Your task to perform on an android device: uninstall "Contacts" Image 0: 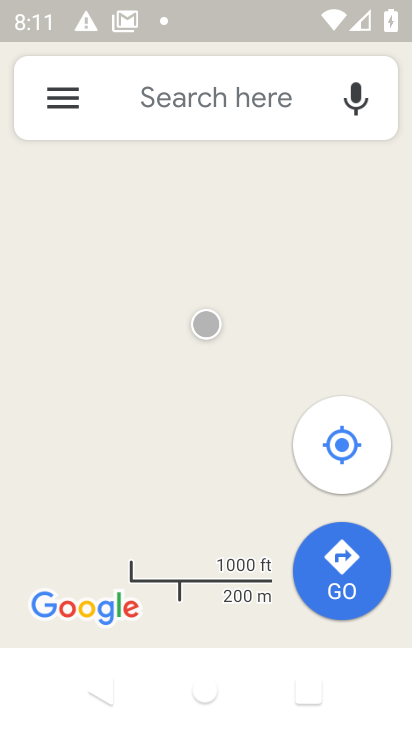
Step 0: press home button
Your task to perform on an android device: uninstall "Contacts" Image 1: 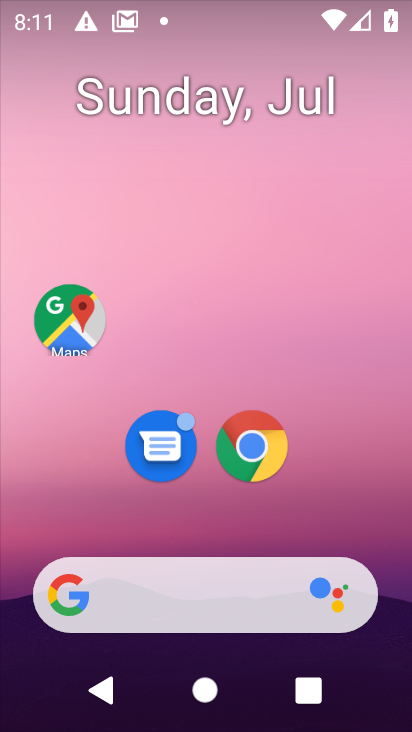
Step 1: drag from (222, 454) to (247, 123)
Your task to perform on an android device: uninstall "Contacts" Image 2: 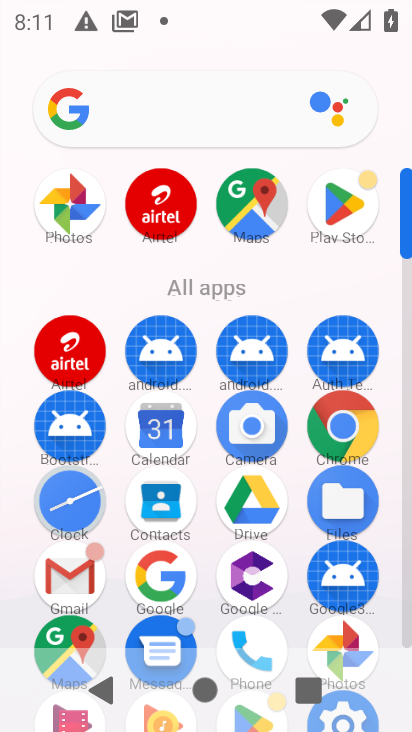
Step 2: click (334, 214)
Your task to perform on an android device: uninstall "Contacts" Image 3: 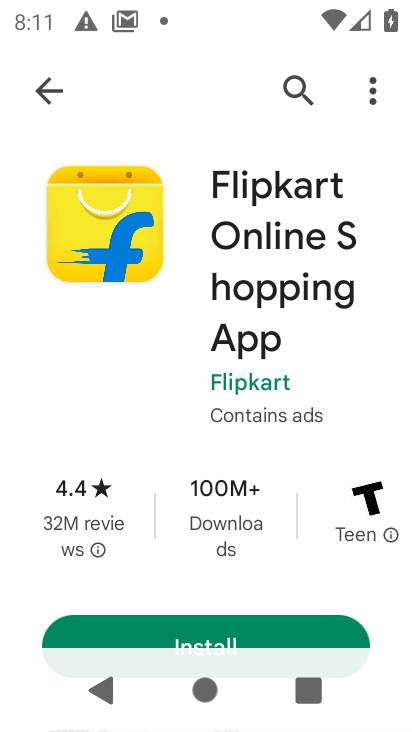
Step 3: click (56, 81)
Your task to perform on an android device: uninstall "Contacts" Image 4: 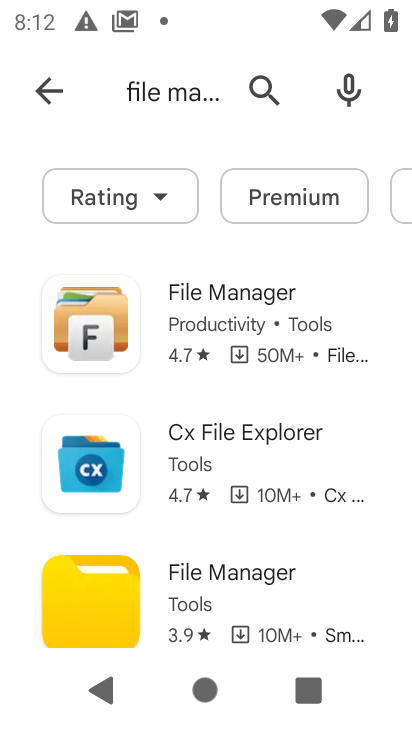
Step 4: click (253, 93)
Your task to perform on an android device: uninstall "Contacts" Image 5: 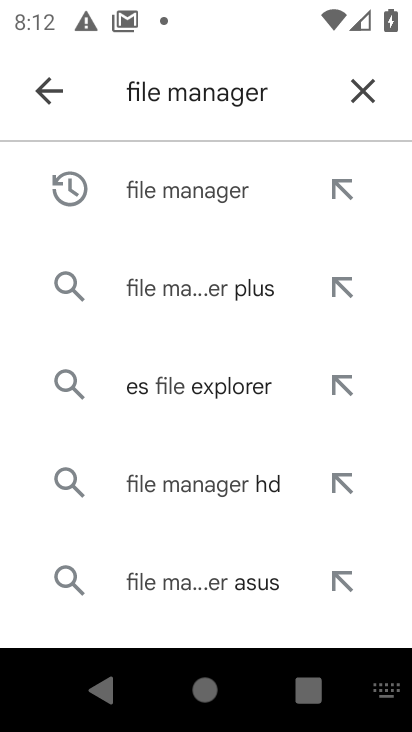
Step 5: click (350, 89)
Your task to perform on an android device: uninstall "Contacts" Image 6: 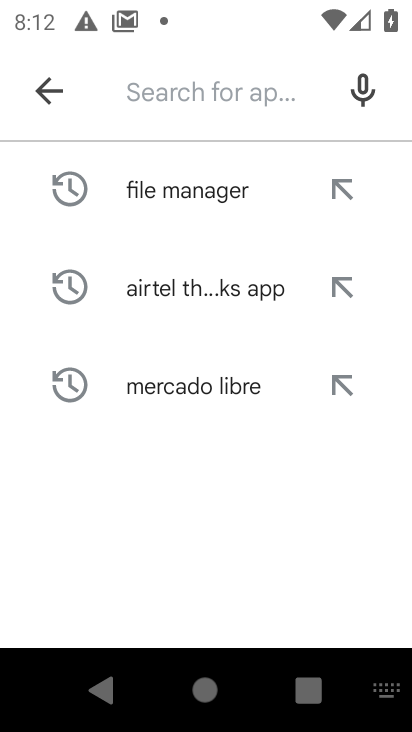
Step 6: type "Contacts"
Your task to perform on an android device: uninstall "Contacts" Image 7: 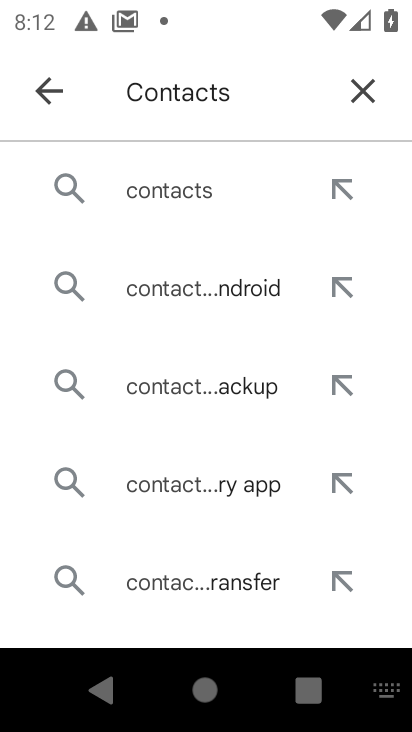
Step 7: click (228, 188)
Your task to perform on an android device: uninstall "Contacts" Image 8: 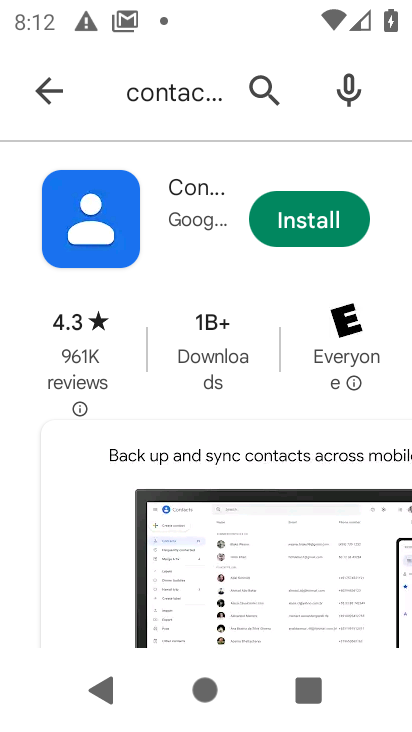
Step 8: task complete